Your task to perform on an android device: Open calendar and show me the fourth week of next month Image 0: 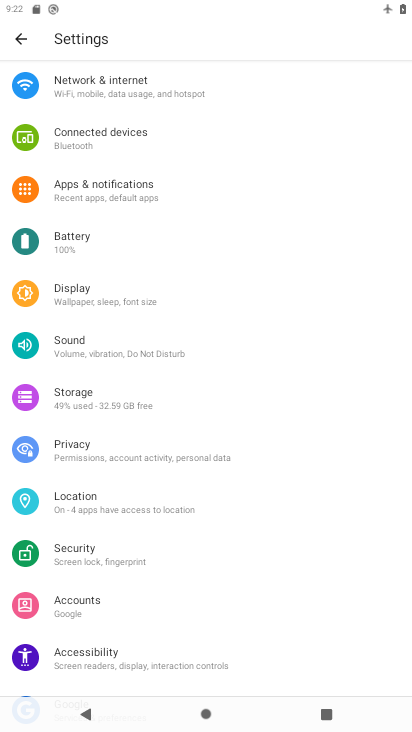
Step 0: press home button
Your task to perform on an android device: Open calendar and show me the fourth week of next month Image 1: 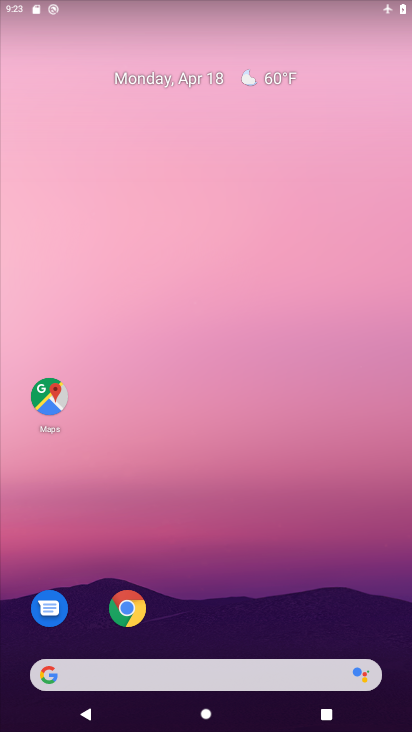
Step 1: drag from (324, 405) to (298, 74)
Your task to perform on an android device: Open calendar and show me the fourth week of next month Image 2: 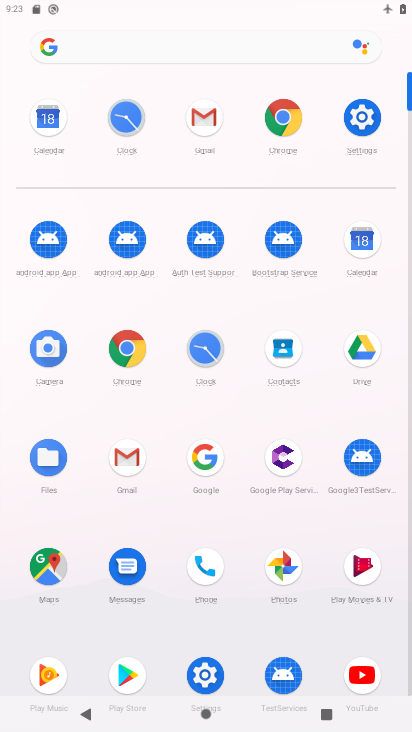
Step 2: click (358, 240)
Your task to perform on an android device: Open calendar and show me the fourth week of next month Image 3: 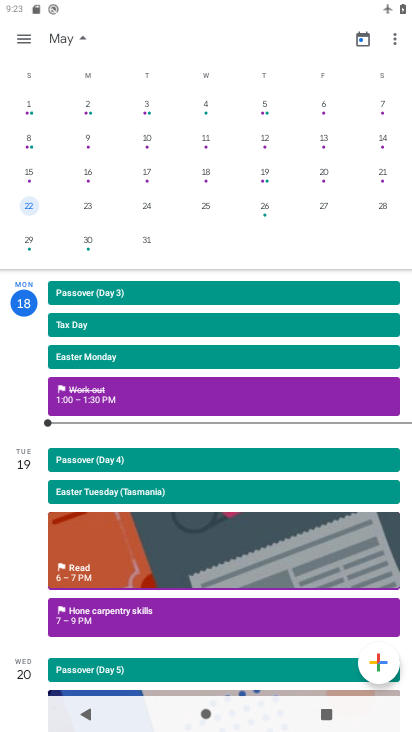
Step 3: click (59, 37)
Your task to perform on an android device: Open calendar and show me the fourth week of next month Image 4: 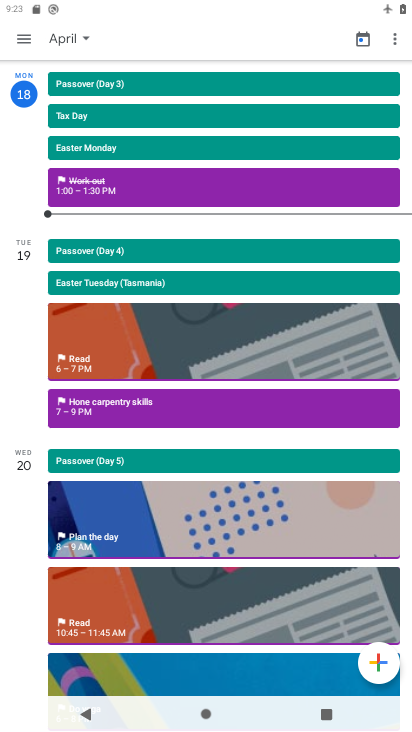
Step 4: click (59, 37)
Your task to perform on an android device: Open calendar and show me the fourth week of next month Image 5: 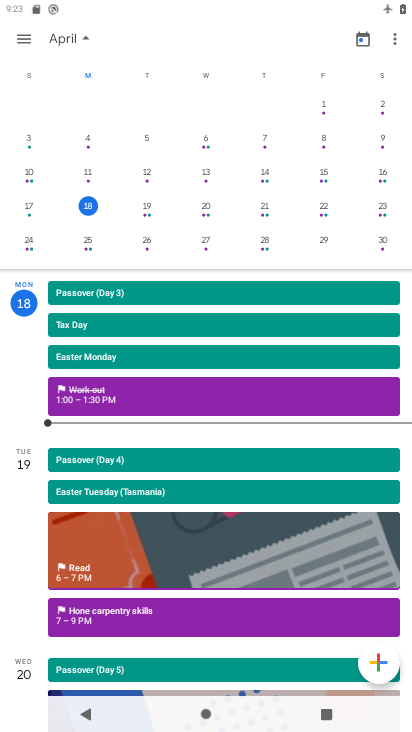
Step 5: drag from (366, 122) to (76, 105)
Your task to perform on an android device: Open calendar and show me the fourth week of next month Image 6: 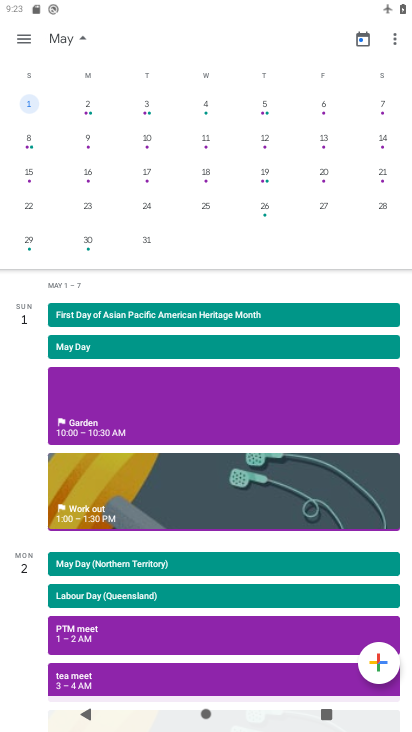
Step 6: click (30, 207)
Your task to perform on an android device: Open calendar and show me the fourth week of next month Image 7: 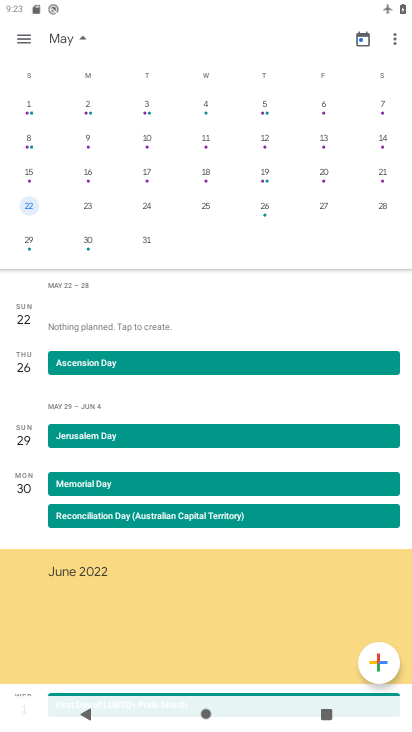
Step 7: task complete